Your task to perform on an android device: View the shopping cart on ebay.com. Search for "logitech g pro" on ebay.com, select the first entry, and add it to the cart. Image 0: 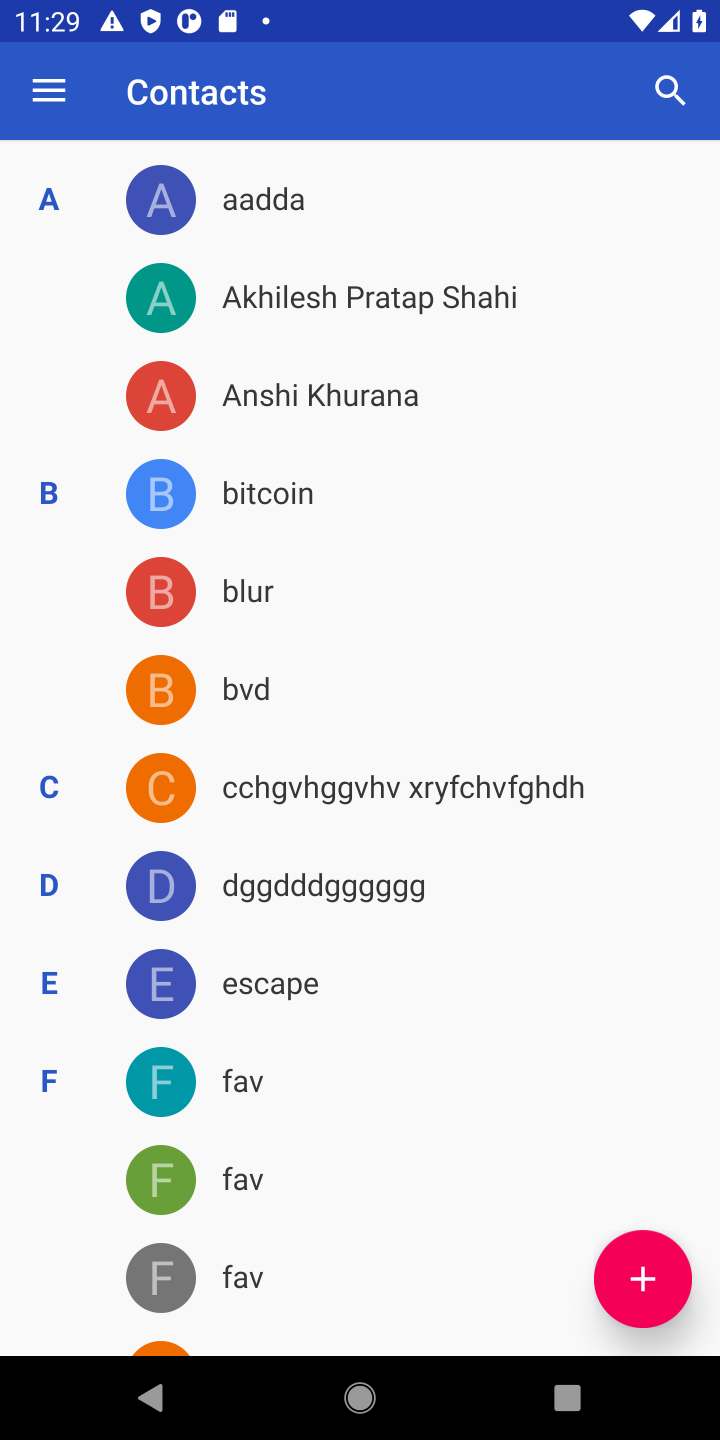
Step 0: press home button
Your task to perform on an android device: View the shopping cart on ebay.com. Search for "logitech g pro" on ebay.com, select the first entry, and add it to the cart. Image 1: 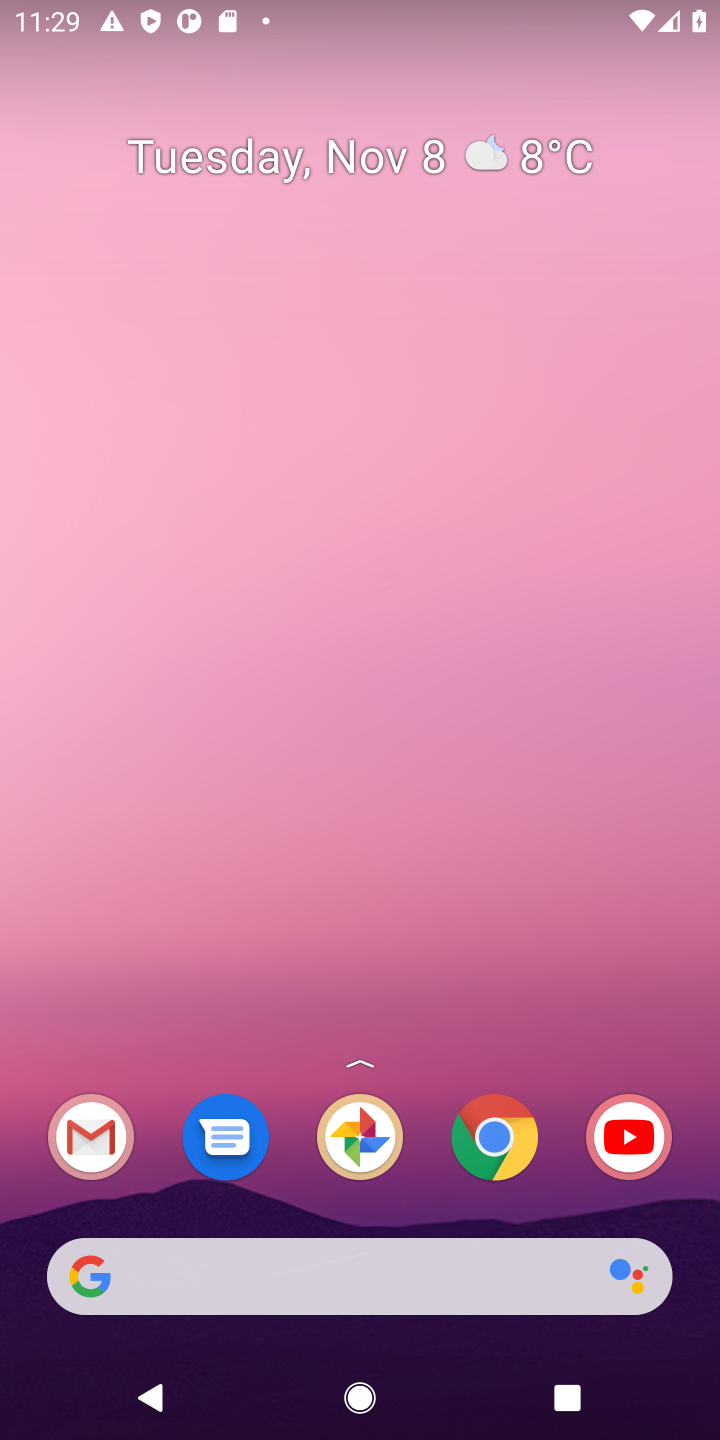
Step 1: click (496, 1102)
Your task to perform on an android device: View the shopping cart on ebay.com. Search for "logitech g pro" on ebay.com, select the first entry, and add it to the cart. Image 2: 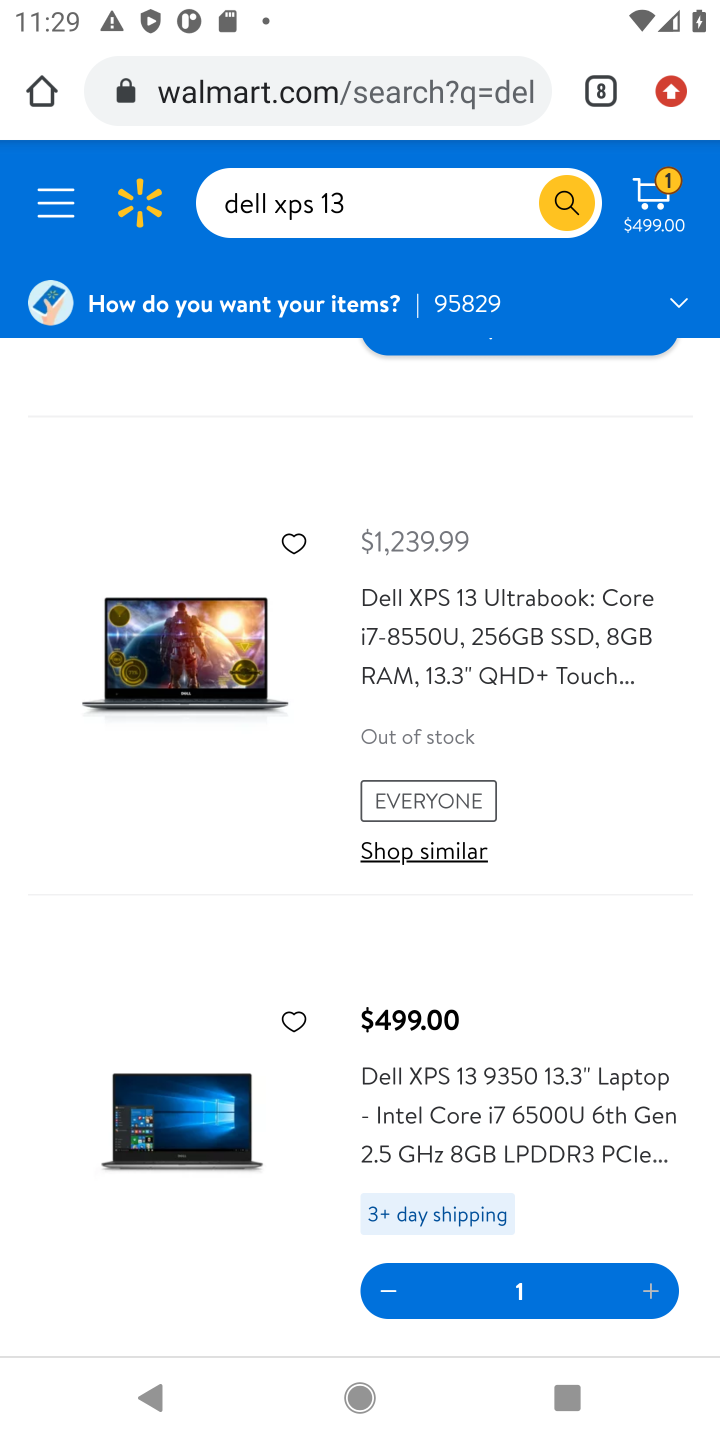
Step 2: click (613, 91)
Your task to perform on an android device: View the shopping cart on ebay.com. Search for "logitech g pro" on ebay.com, select the first entry, and add it to the cart. Image 3: 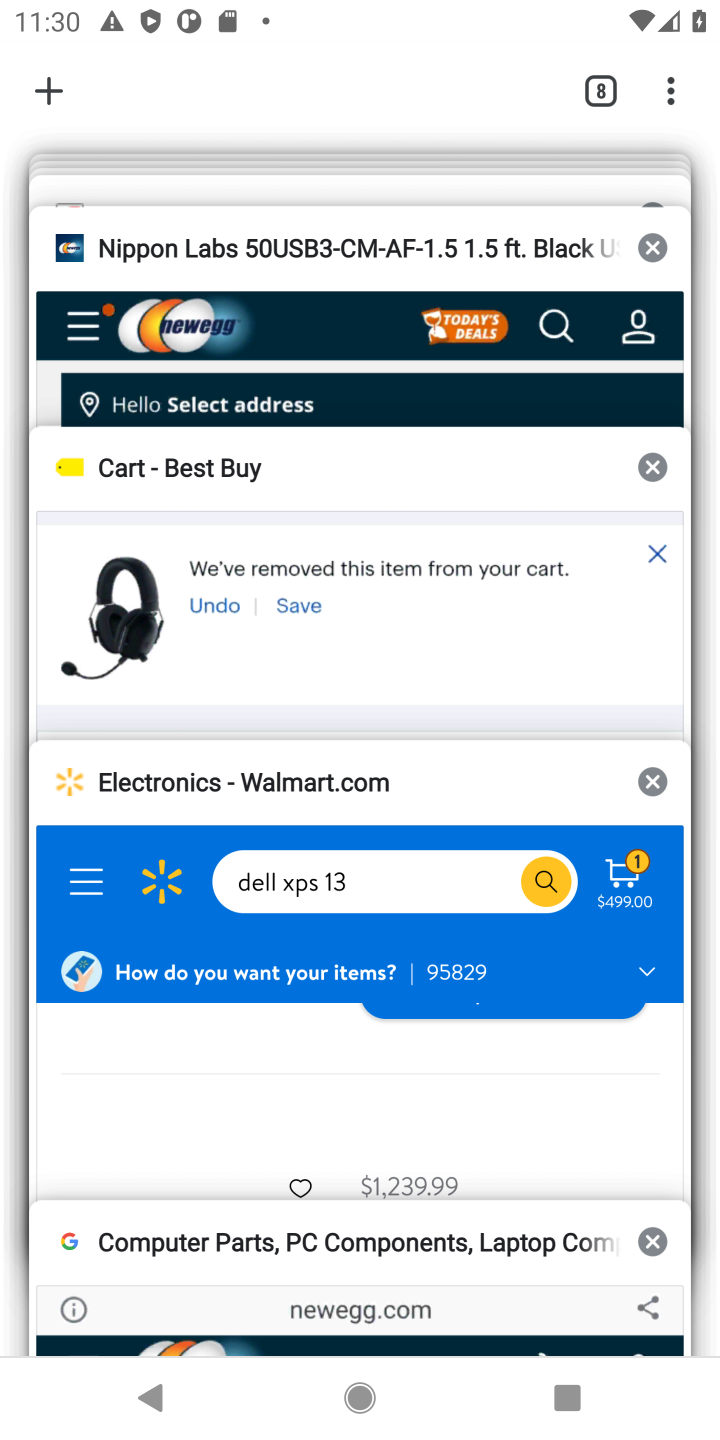
Step 3: click (657, 1242)
Your task to perform on an android device: View the shopping cart on ebay.com. Search for "logitech g pro" on ebay.com, select the first entry, and add it to the cart. Image 4: 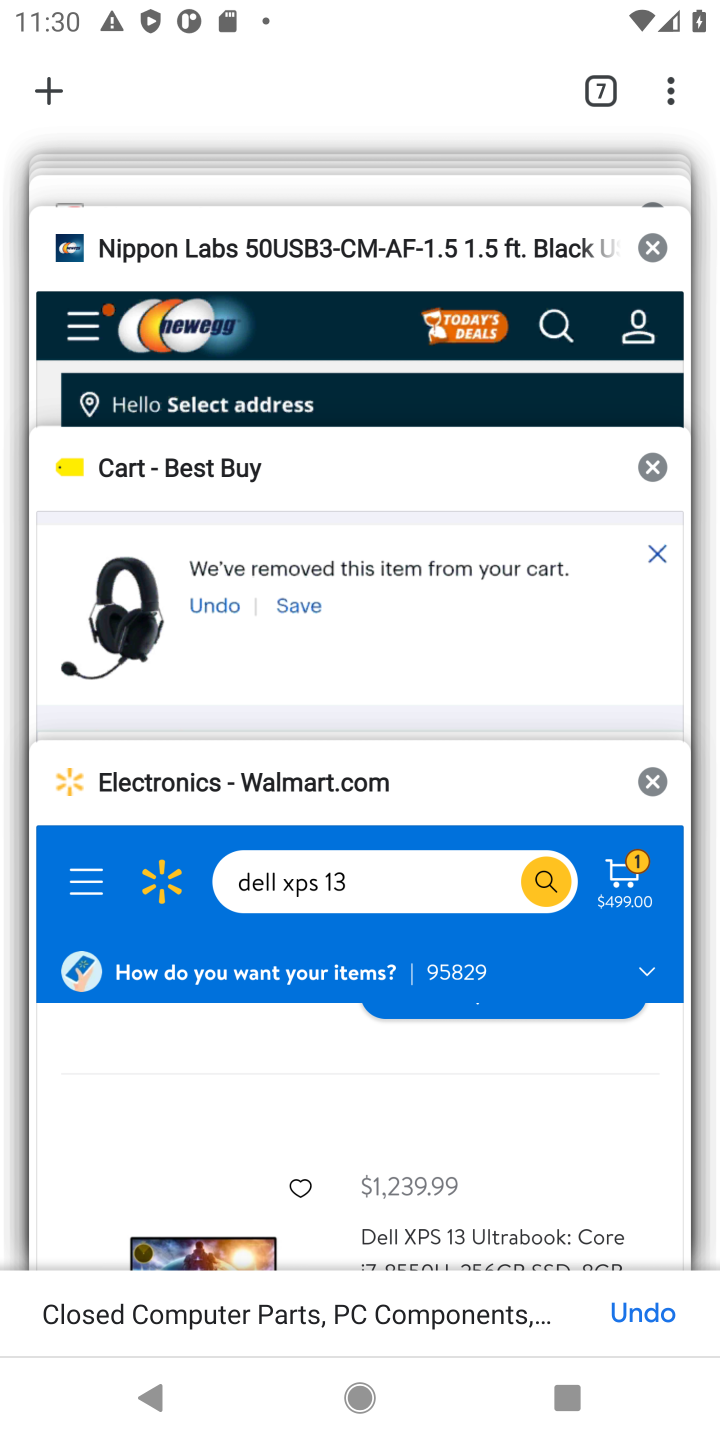
Step 4: drag from (359, 217) to (298, 656)
Your task to perform on an android device: View the shopping cart on ebay.com. Search for "logitech g pro" on ebay.com, select the first entry, and add it to the cart. Image 5: 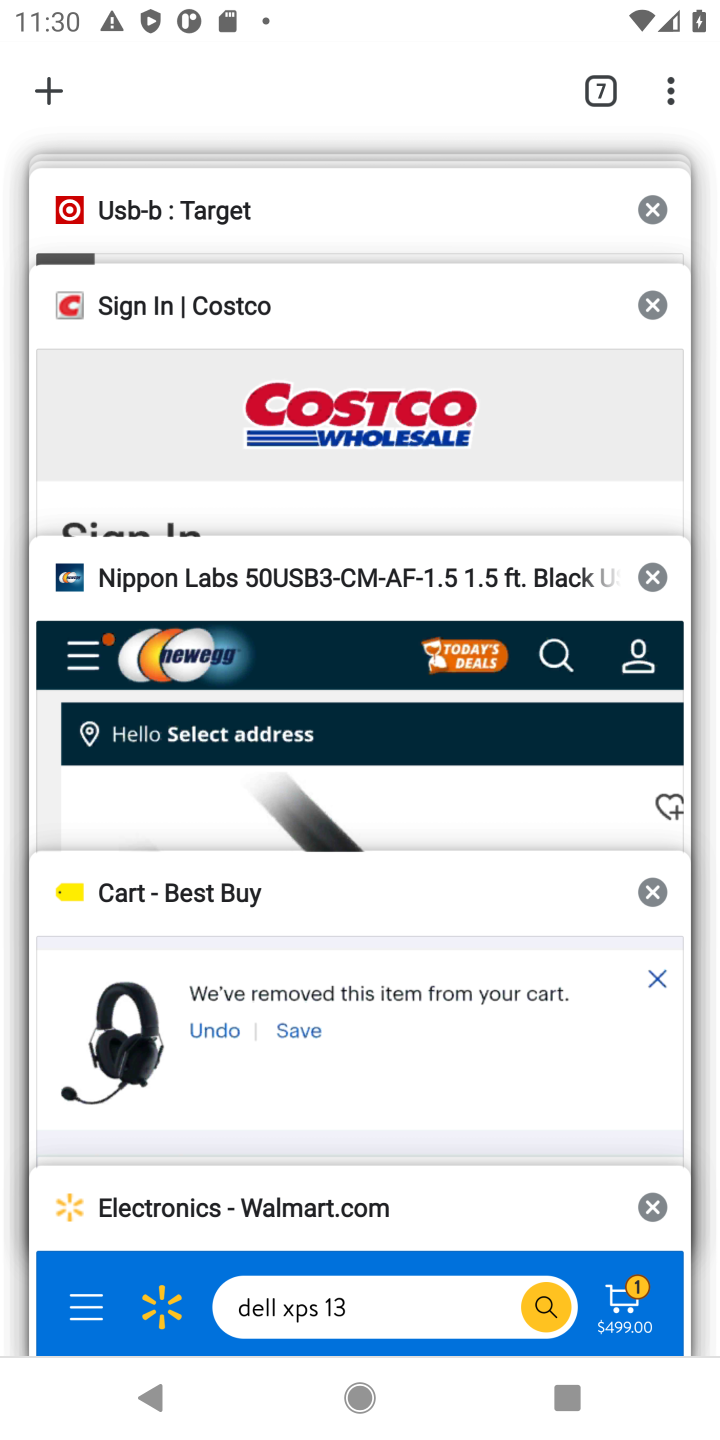
Step 5: click (291, 725)
Your task to perform on an android device: View the shopping cart on ebay.com. Search for "logitech g pro" on ebay.com, select the first entry, and add it to the cart. Image 6: 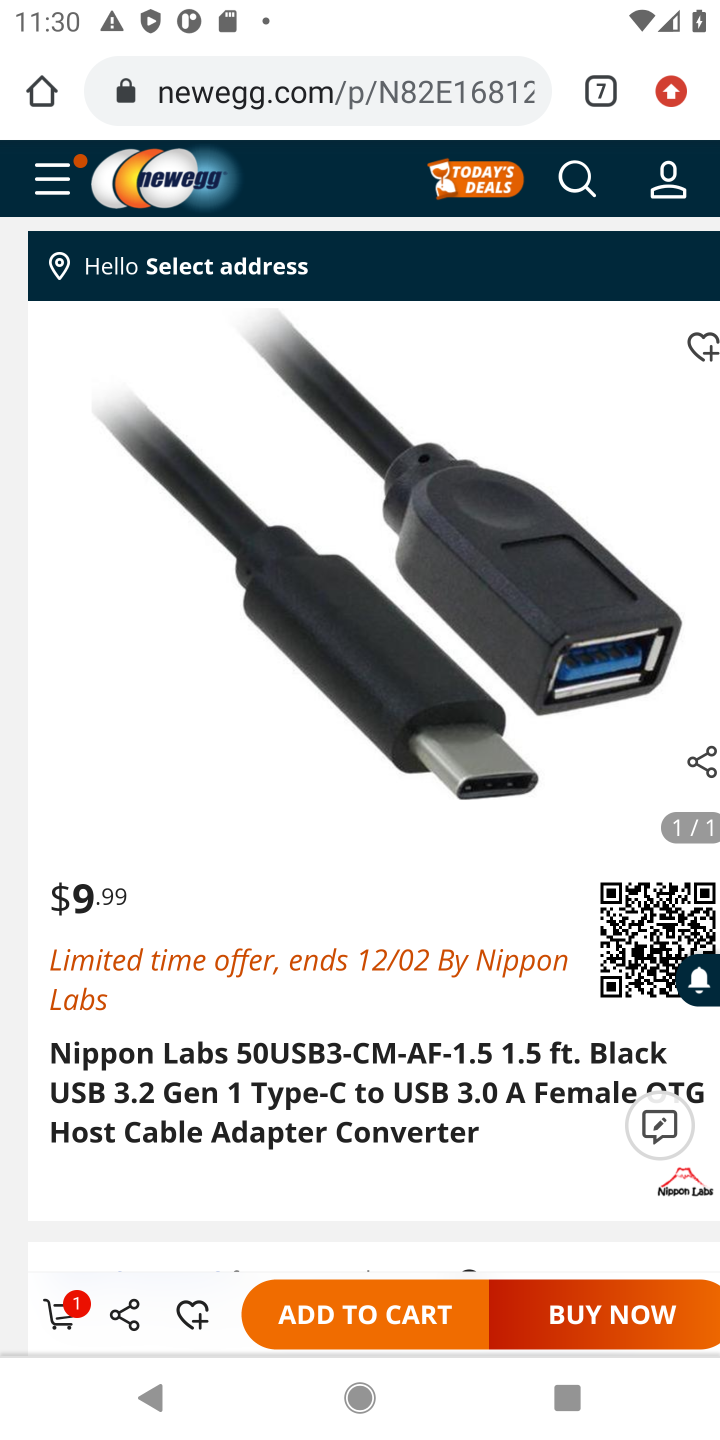
Step 6: click (602, 98)
Your task to perform on an android device: View the shopping cart on ebay.com. Search for "logitech g pro" on ebay.com, select the first entry, and add it to the cart. Image 7: 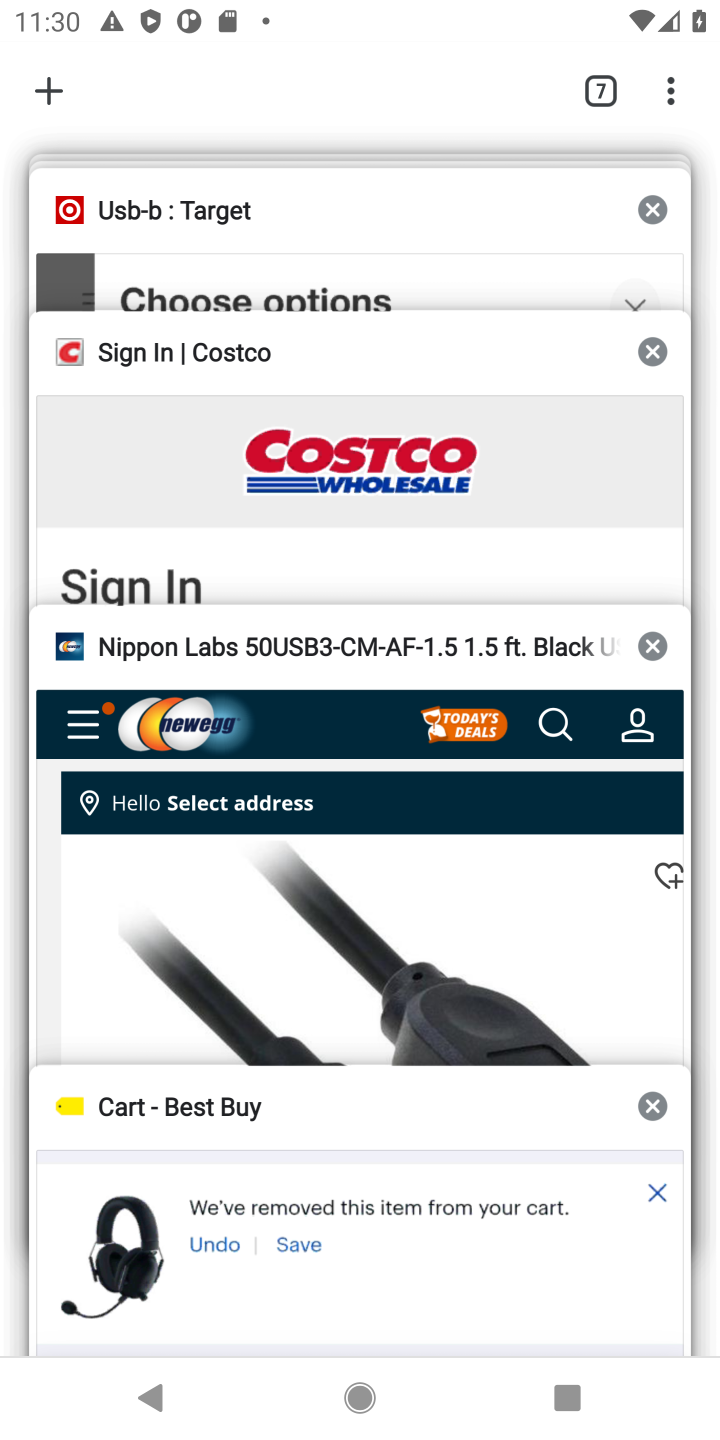
Step 7: drag from (348, 186) to (162, 578)
Your task to perform on an android device: View the shopping cart on ebay.com. Search for "logitech g pro" on ebay.com, select the first entry, and add it to the cart. Image 8: 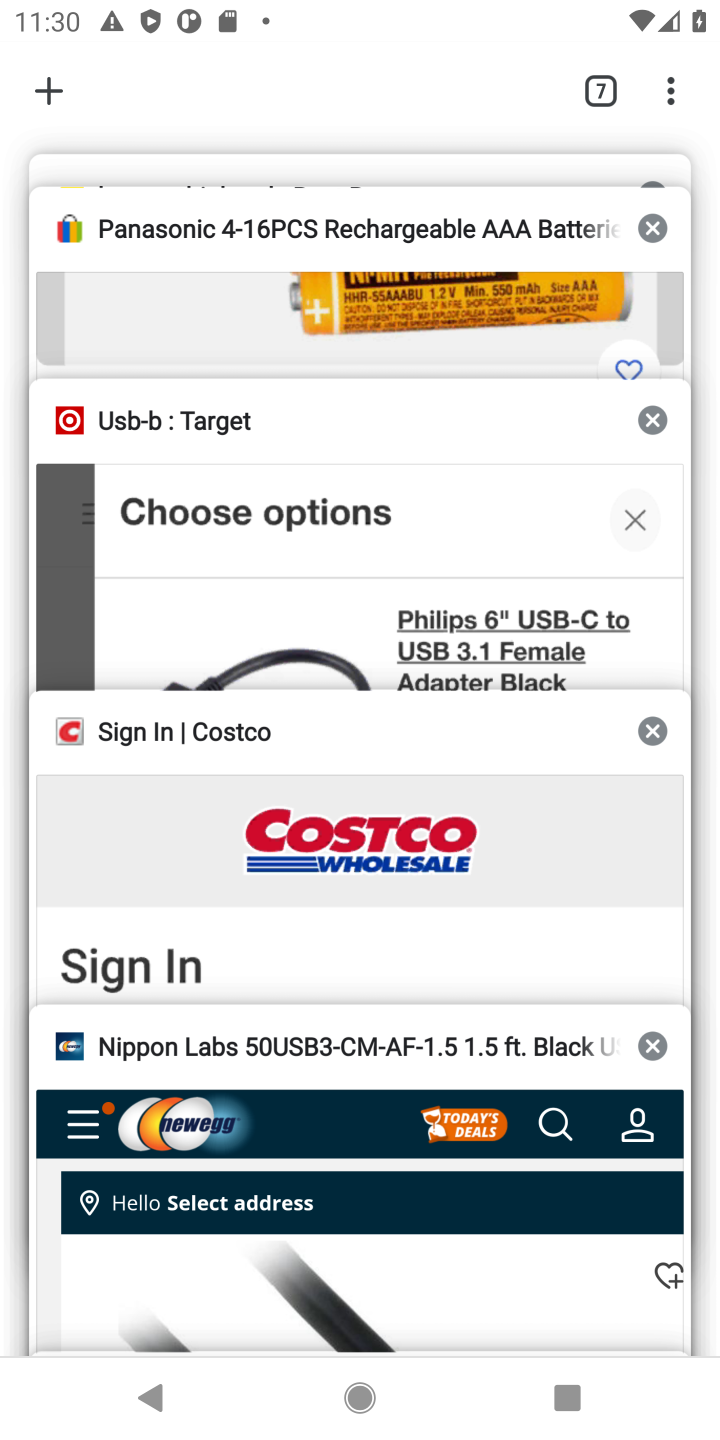
Step 8: click (251, 303)
Your task to perform on an android device: View the shopping cart on ebay.com. Search for "logitech g pro" on ebay.com, select the first entry, and add it to the cart. Image 9: 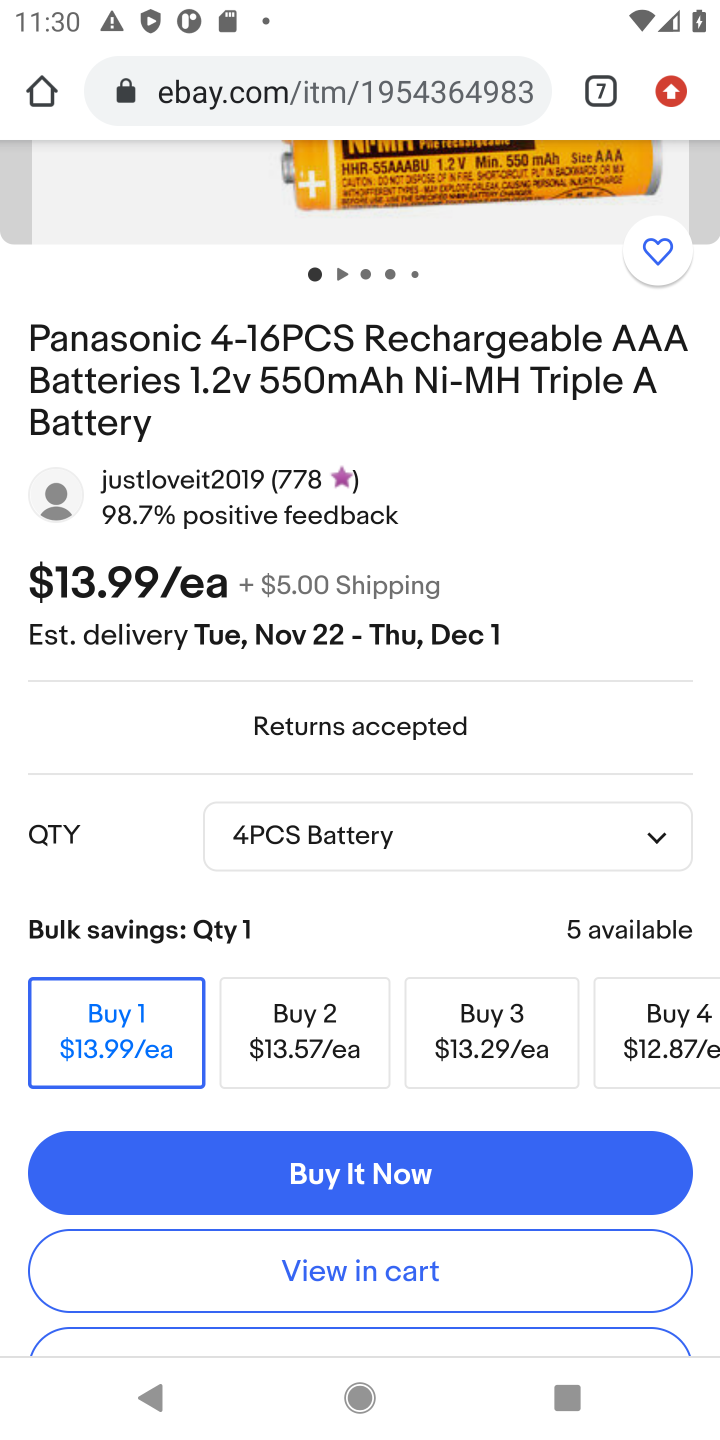
Step 9: drag from (352, 532) to (309, 865)
Your task to perform on an android device: View the shopping cart on ebay.com. Search for "logitech g pro" on ebay.com, select the first entry, and add it to the cart. Image 10: 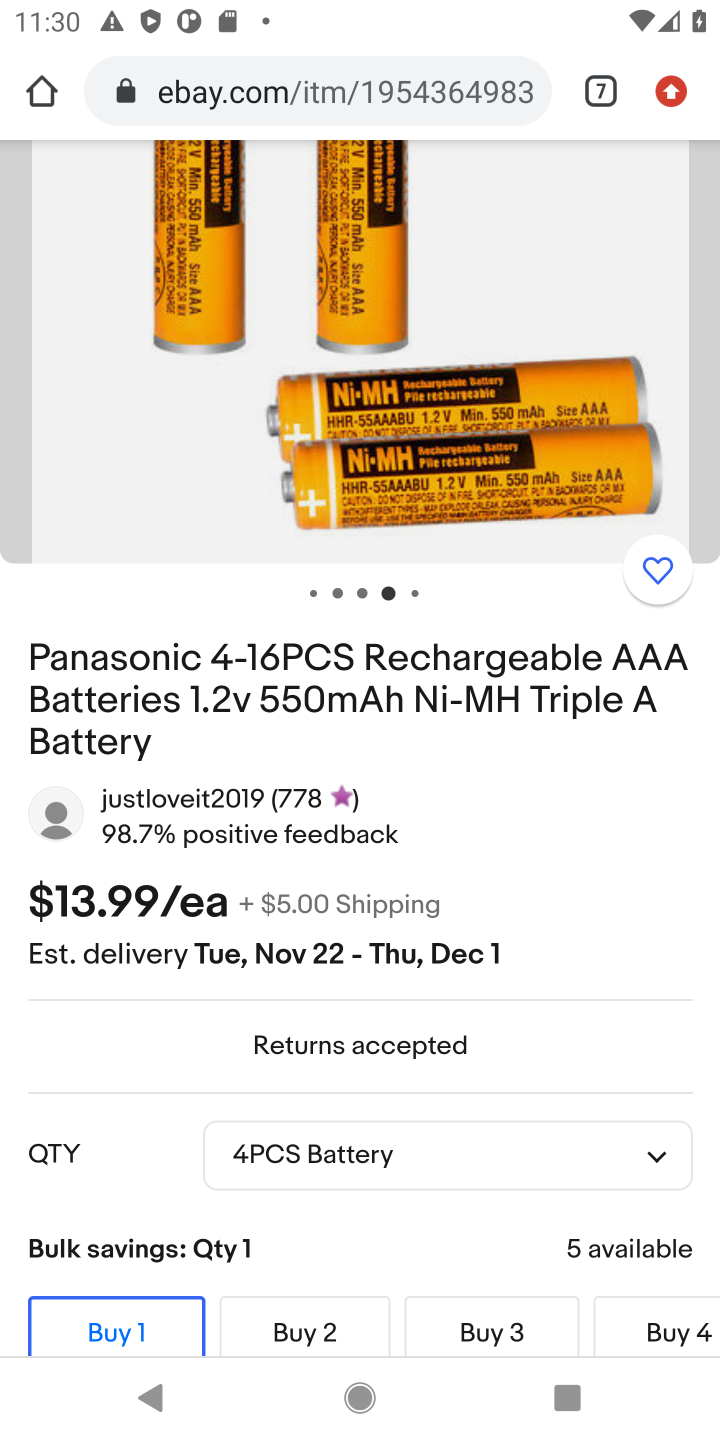
Step 10: drag from (530, 380) to (535, 1347)
Your task to perform on an android device: View the shopping cart on ebay.com. Search for "logitech g pro" on ebay.com, select the first entry, and add it to the cart. Image 11: 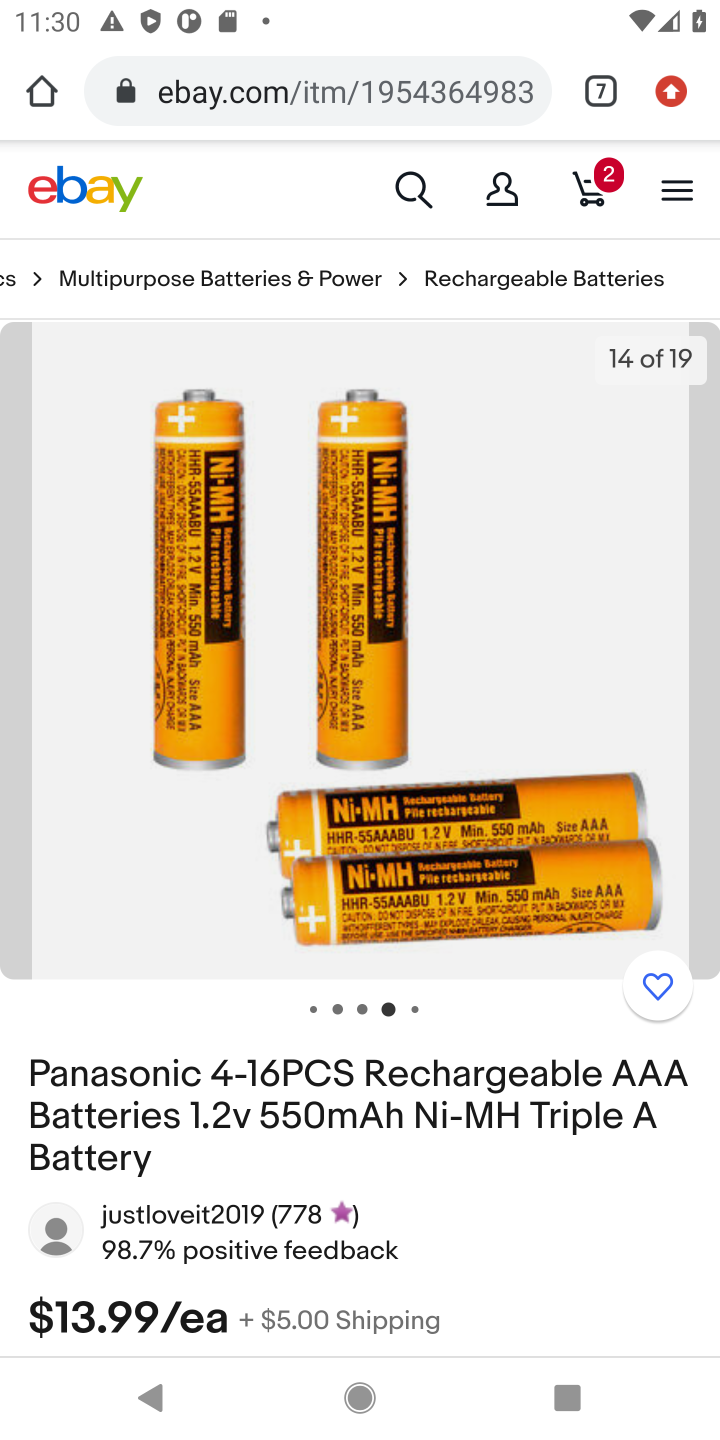
Step 11: click (402, 182)
Your task to perform on an android device: View the shopping cart on ebay.com. Search for "logitech g pro" on ebay.com, select the first entry, and add it to the cart. Image 12: 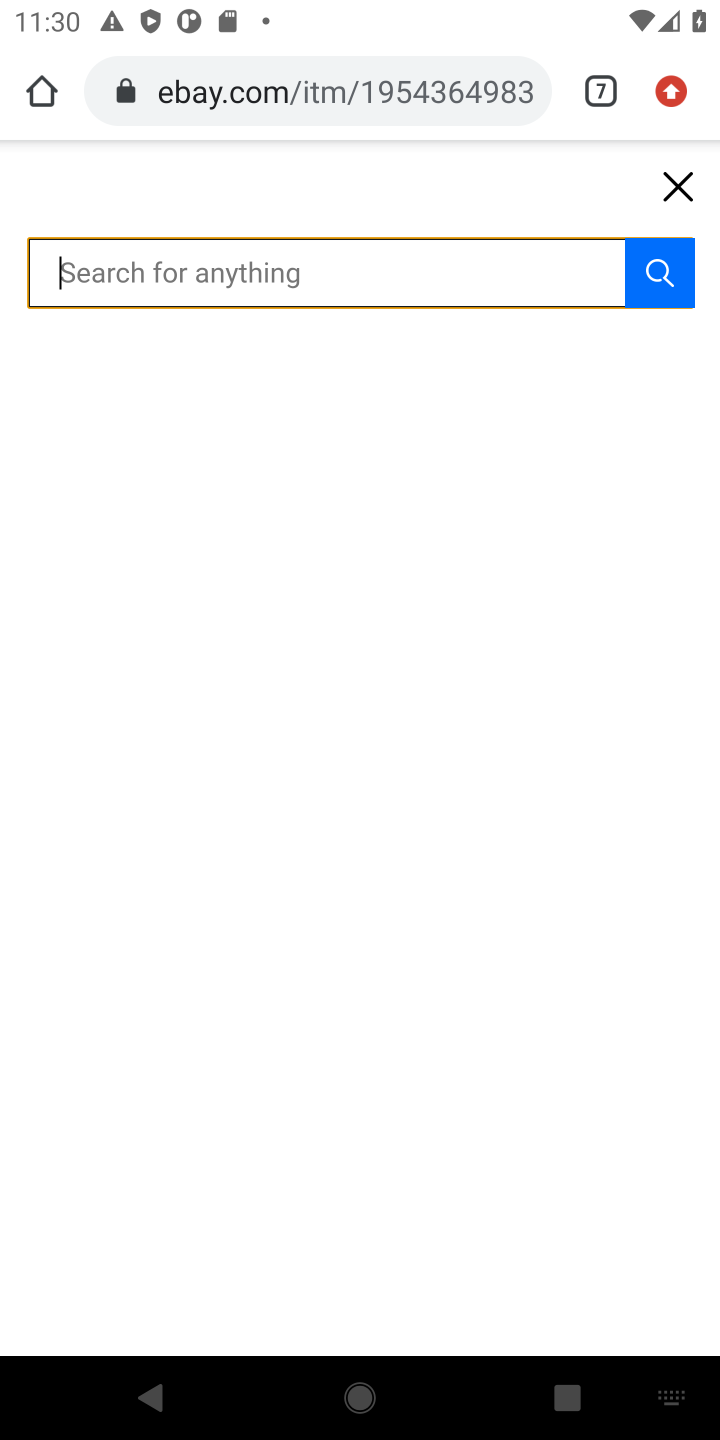
Step 12: type "logitech g pro"
Your task to perform on an android device: View the shopping cart on ebay.com. Search for "logitech g pro" on ebay.com, select the first entry, and add it to the cart. Image 13: 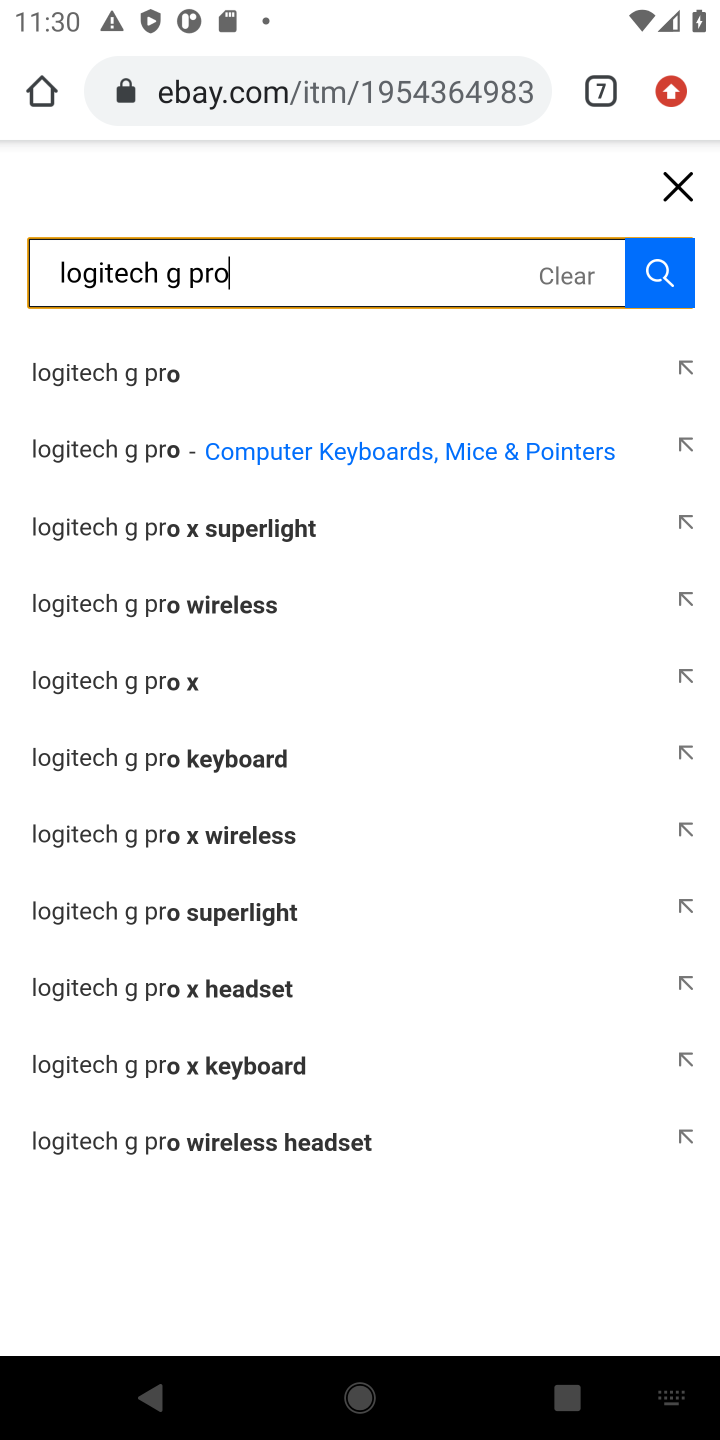
Step 13: click (137, 438)
Your task to perform on an android device: View the shopping cart on ebay.com. Search for "logitech g pro" on ebay.com, select the first entry, and add it to the cart. Image 14: 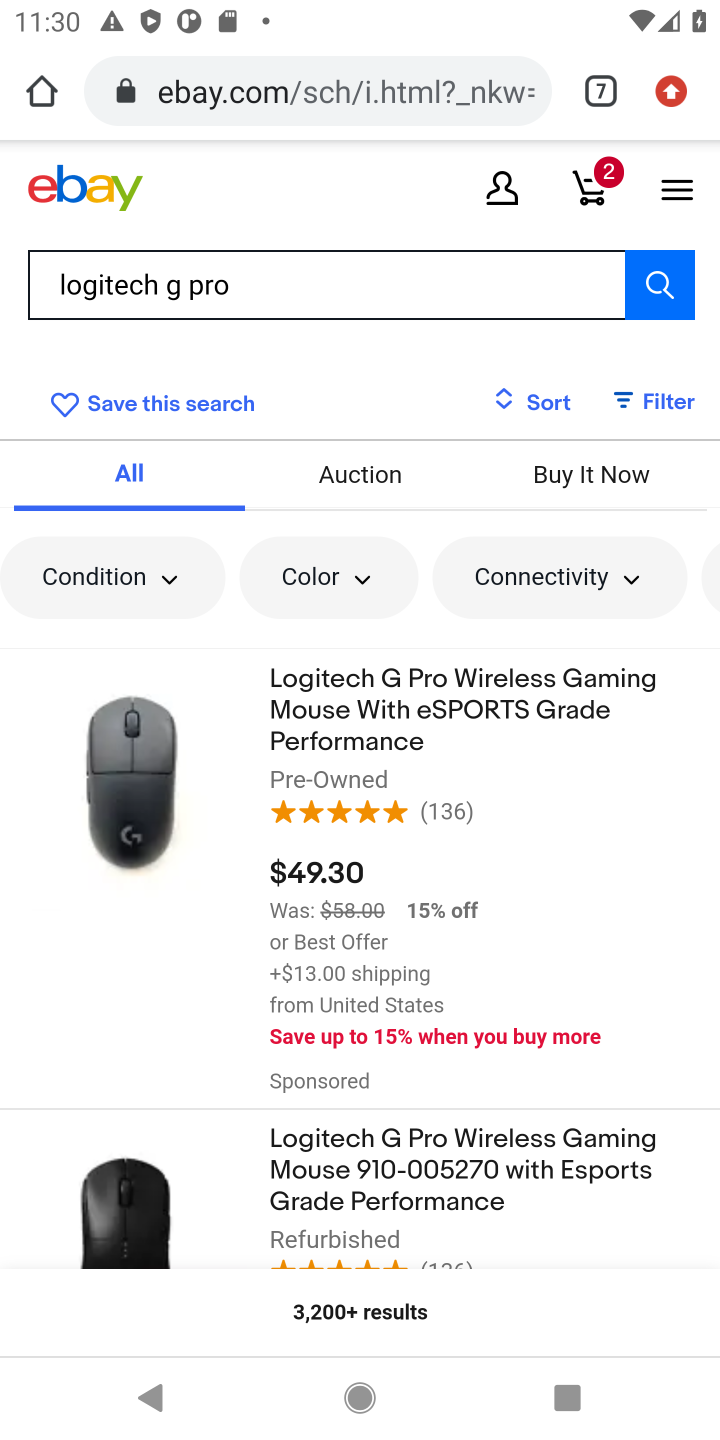
Step 14: click (533, 667)
Your task to perform on an android device: View the shopping cart on ebay.com. Search for "logitech g pro" on ebay.com, select the first entry, and add it to the cart. Image 15: 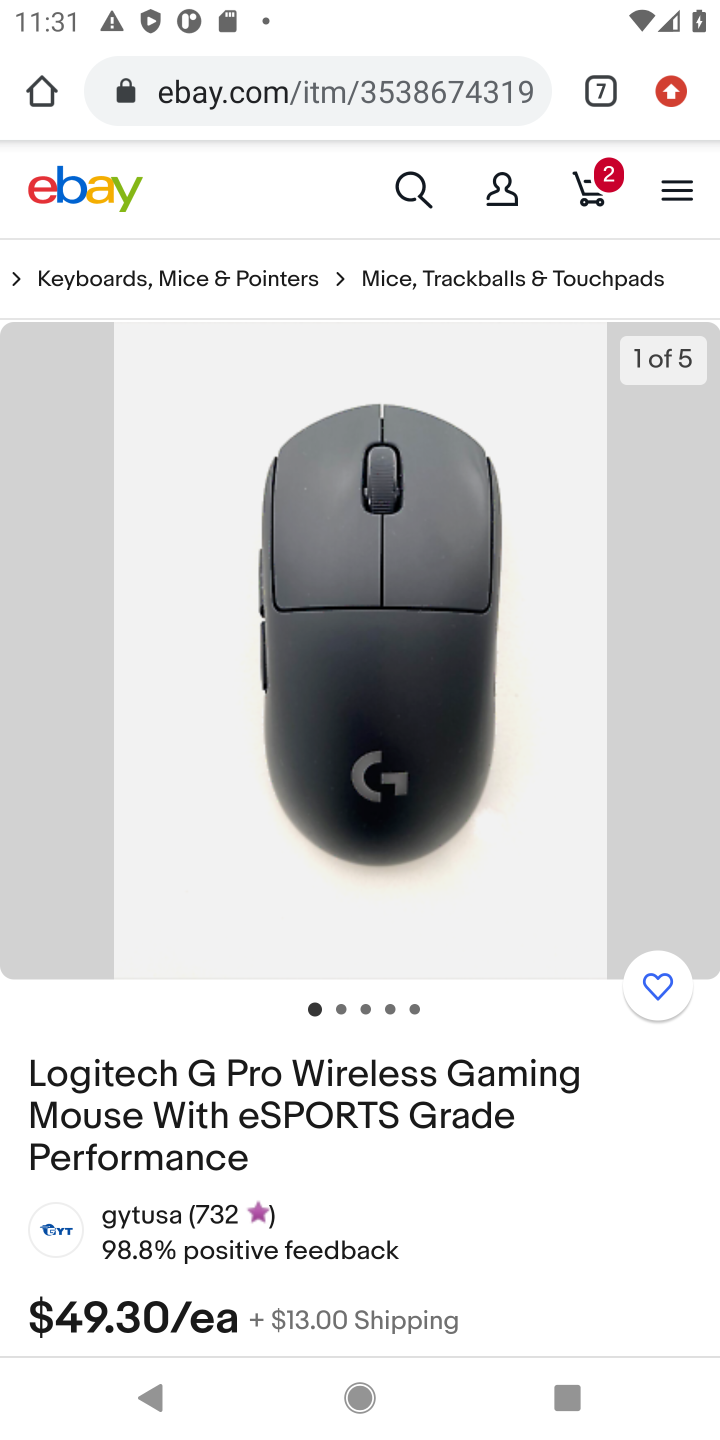
Step 15: drag from (546, 1289) to (669, 467)
Your task to perform on an android device: View the shopping cart on ebay.com. Search for "logitech g pro" on ebay.com, select the first entry, and add it to the cart. Image 16: 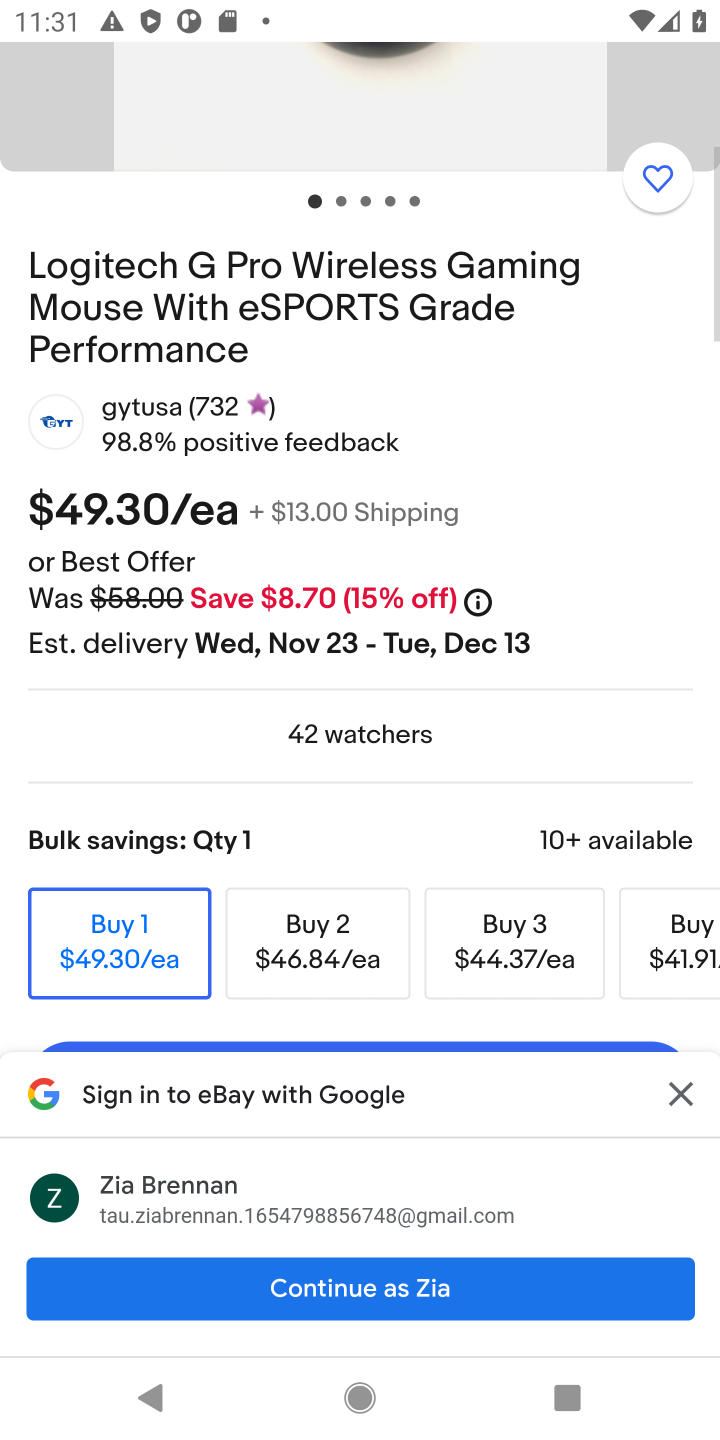
Step 16: click (377, 1282)
Your task to perform on an android device: View the shopping cart on ebay.com. Search for "logitech g pro" on ebay.com, select the first entry, and add it to the cart. Image 17: 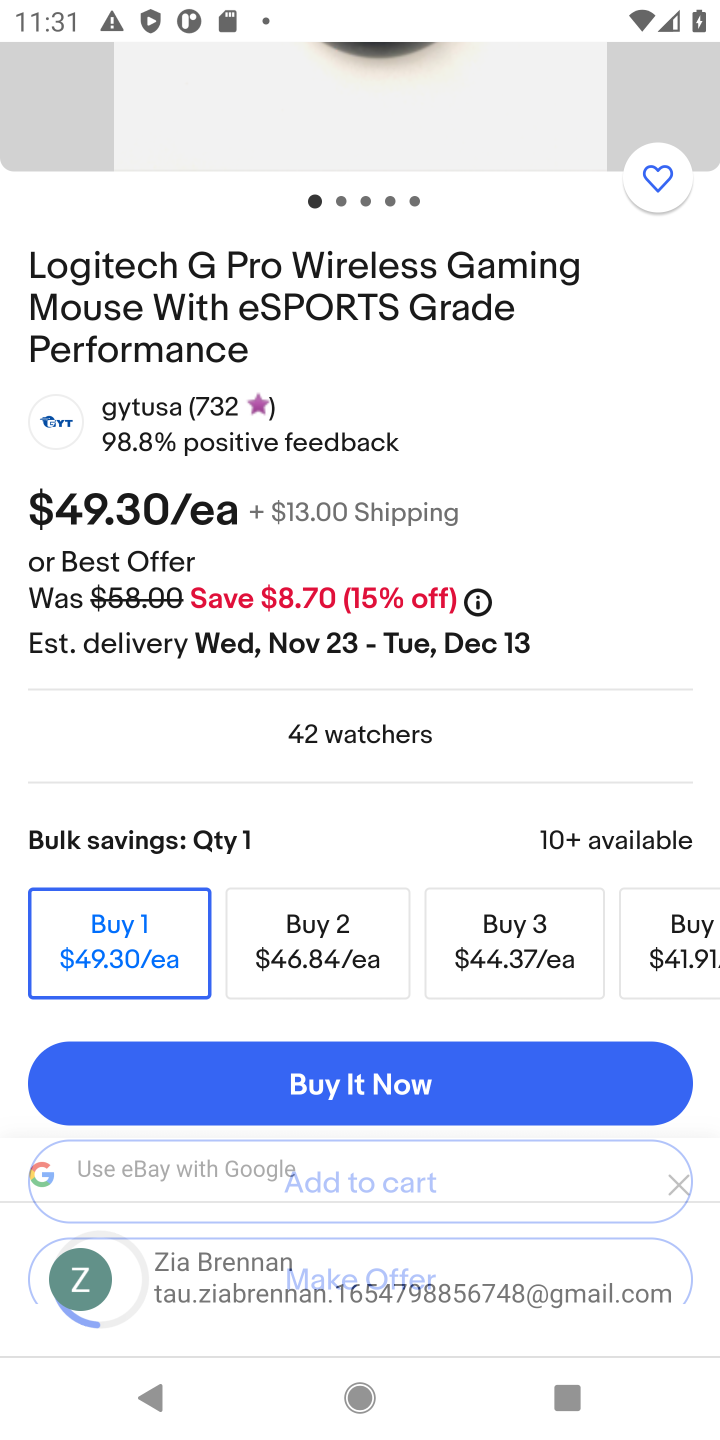
Step 17: click (363, 1196)
Your task to perform on an android device: View the shopping cart on ebay.com. Search for "logitech g pro" on ebay.com, select the first entry, and add it to the cart. Image 18: 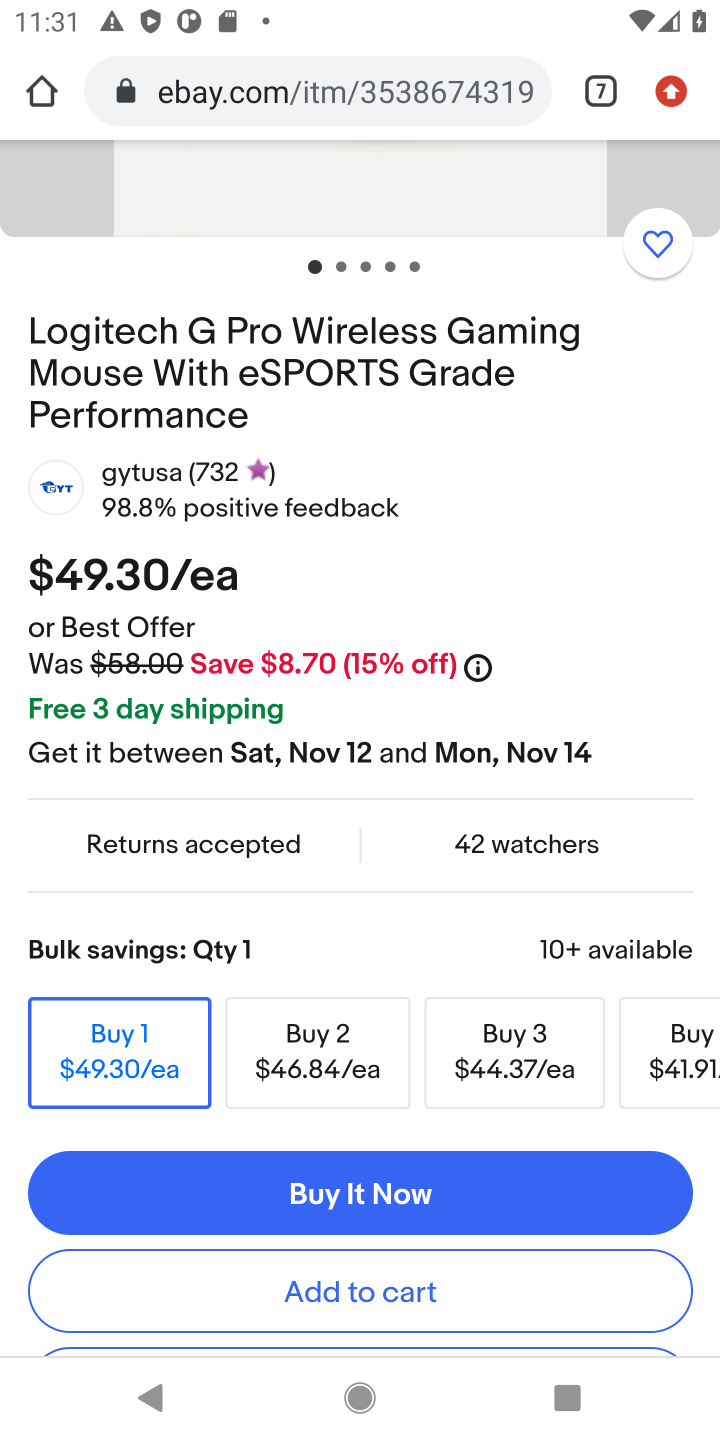
Step 18: click (446, 1290)
Your task to perform on an android device: View the shopping cart on ebay.com. Search for "logitech g pro" on ebay.com, select the first entry, and add it to the cart. Image 19: 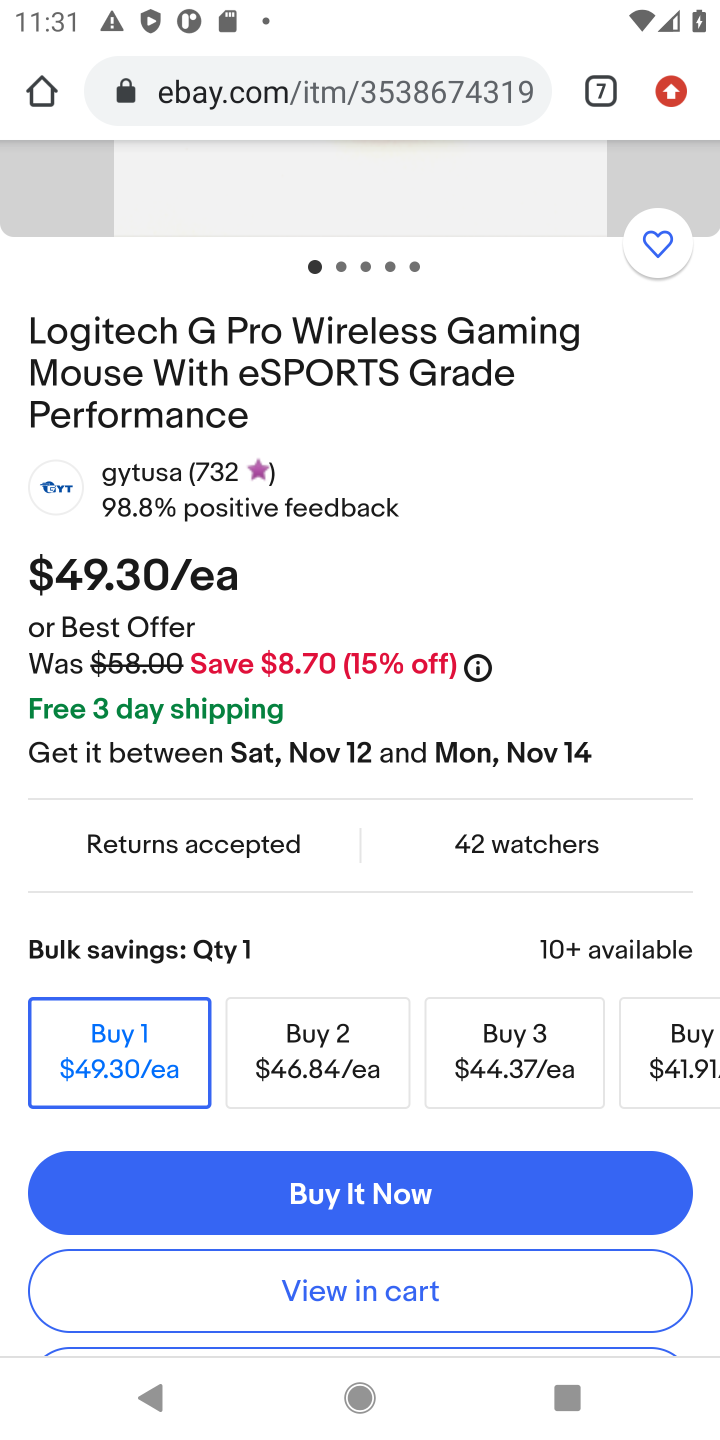
Step 19: task complete